Your task to perform on an android device: add a label to a message in the gmail app Image 0: 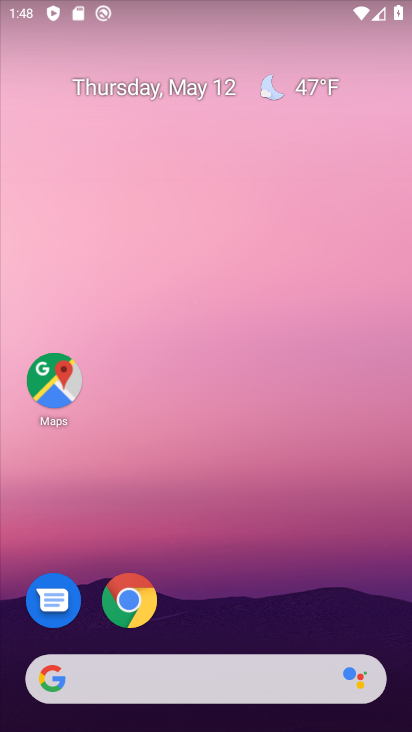
Step 0: drag from (211, 533) to (279, 41)
Your task to perform on an android device: add a label to a message in the gmail app Image 1: 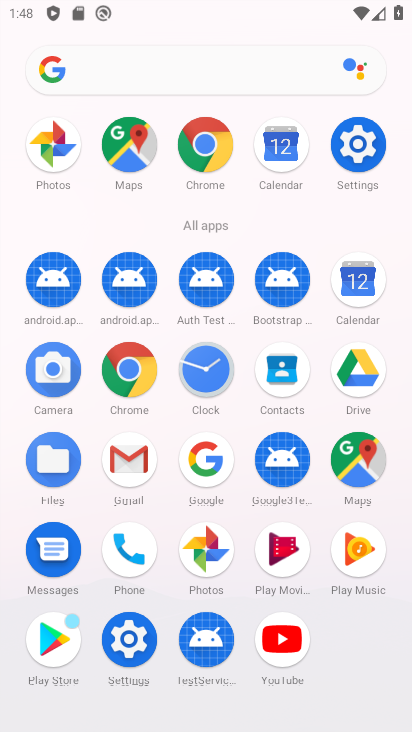
Step 1: click (134, 459)
Your task to perform on an android device: add a label to a message in the gmail app Image 2: 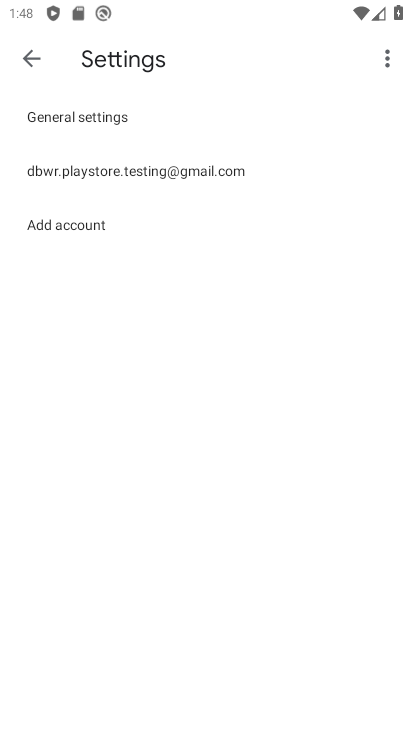
Step 2: click (37, 59)
Your task to perform on an android device: add a label to a message in the gmail app Image 3: 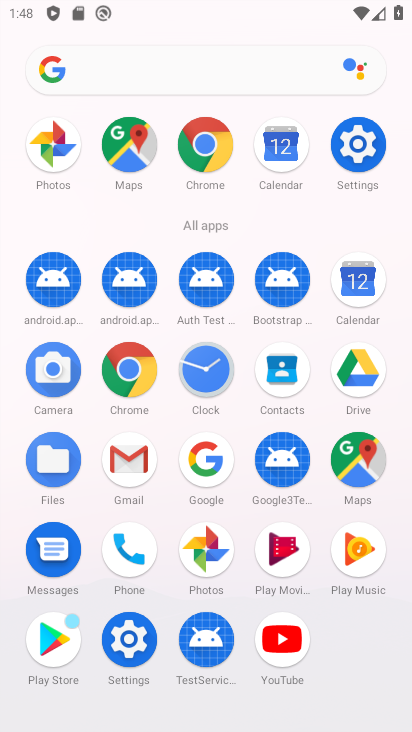
Step 3: click (136, 471)
Your task to perform on an android device: add a label to a message in the gmail app Image 4: 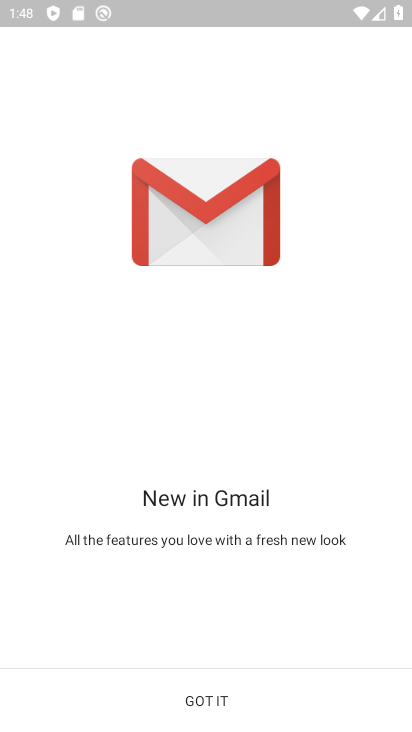
Step 4: click (173, 693)
Your task to perform on an android device: add a label to a message in the gmail app Image 5: 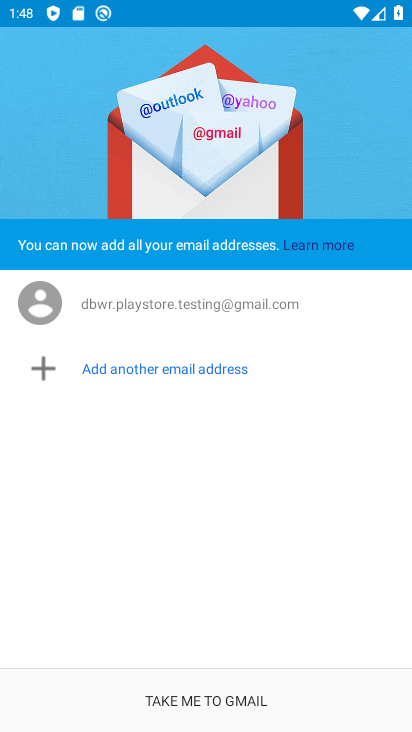
Step 5: click (173, 693)
Your task to perform on an android device: add a label to a message in the gmail app Image 6: 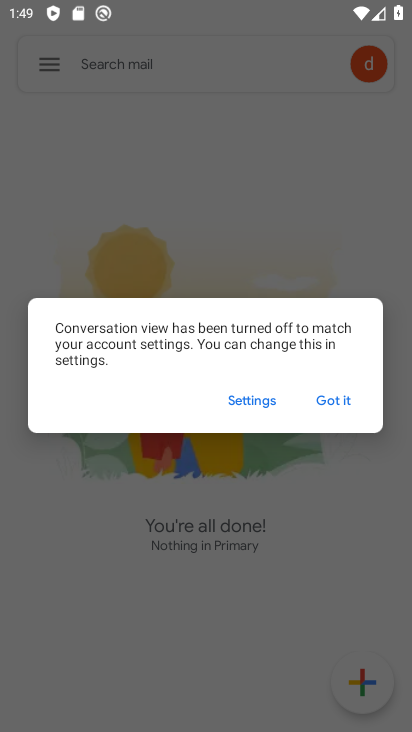
Step 6: click (331, 399)
Your task to perform on an android device: add a label to a message in the gmail app Image 7: 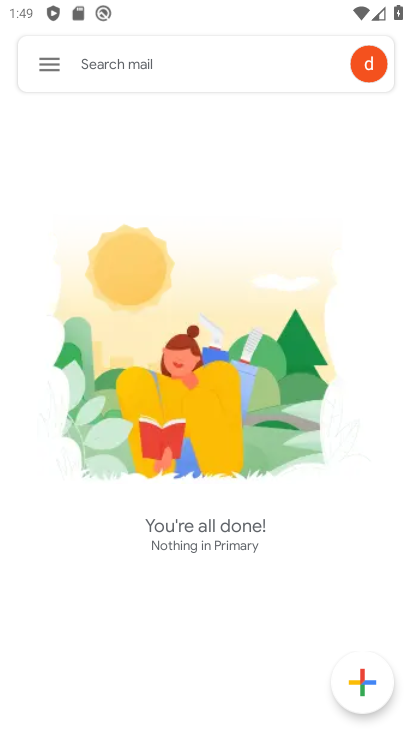
Step 7: task complete